Your task to perform on an android device: Open settings Image 0: 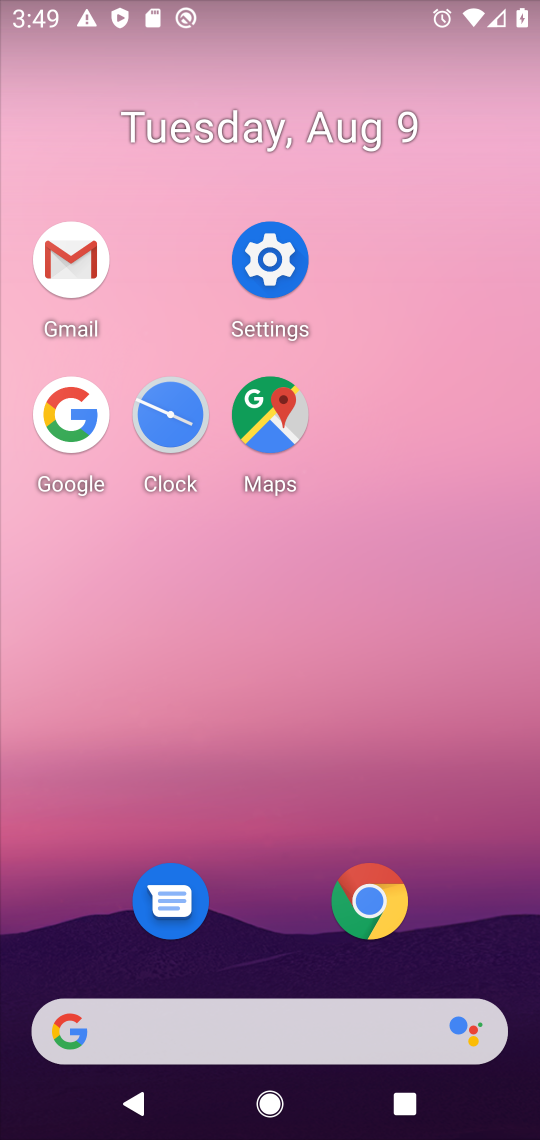
Step 0: click (283, 237)
Your task to perform on an android device: Open settings Image 1: 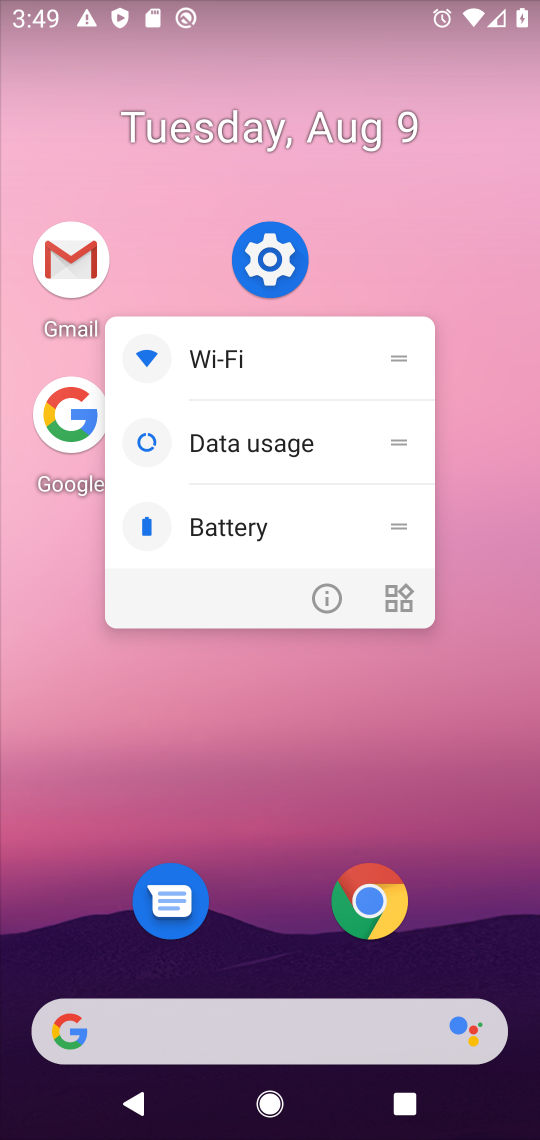
Step 1: click (275, 245)
Your task to perform on an android device: Open settings Image 2: 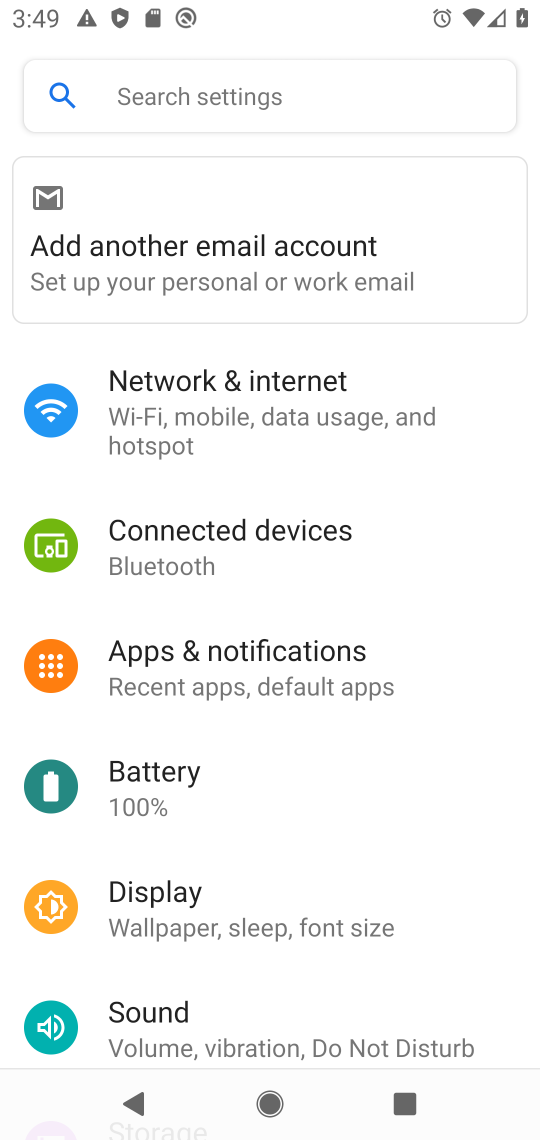
Step 2: task complete